Your task to perform on an android device: Clear all items from cart on walmart.com. Search for "duracell triple a" on walmart.com, select the first entry, add it to the cart, then select checkout. Image 0: 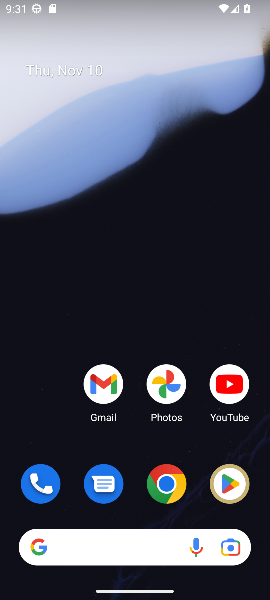
Step 0: click (172, 491)
Your task to perform on an android device: Clear all items from cart on walmart.com. Search for "duracell triple a" on walmart.com, select the first entry, add it to the cart, then select checkout. Image 1: 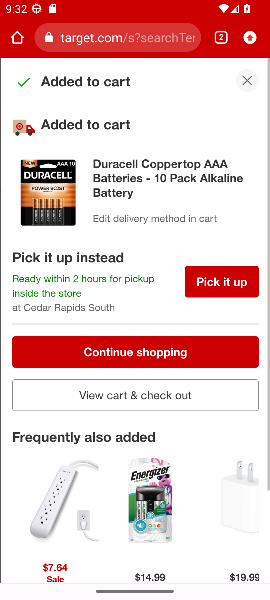
Step 1: click (106, 39)
Your task to perform on an android device: Clear all items from cart on walmart.com. Search for "duracell triple a" on walmart.com, select the first entry, add it to the cart, then select checkout. Image 2: 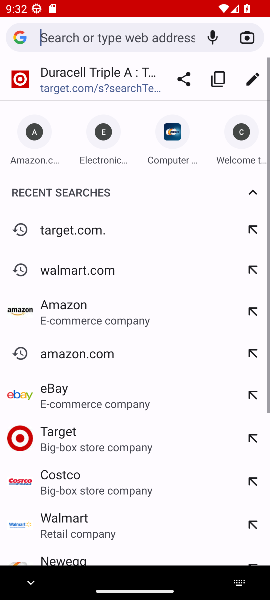
Step 2: click (82, 275)
Your task to perform on an android device: Clear all items from cart on walmart.com. Search for "duracell triple a" on walmart.com, select the first entry, add it to the cart, then select checkout. Image 3: 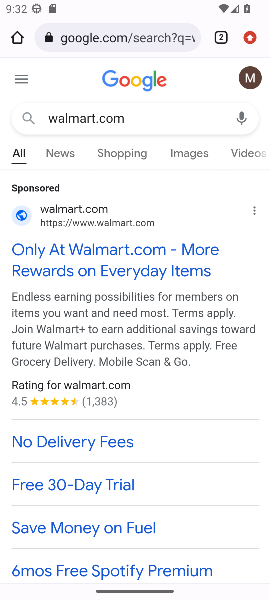
Step 3: drag from (70, 397) to (82, 197)
Your task to perform on an android device: Clear all items from cart on walmart.com. Search for "duracell triple a" on walmart.com, select the first entry, add it to the cart, then select checkout. Image 4: 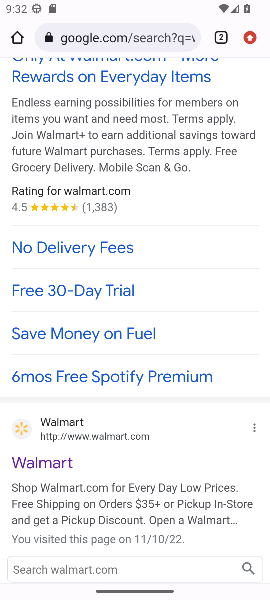
Step 4: click (48, 464)
Your task to perform on an android device: Clear all items from cart on walmart.com. Search for "duracell triple a" on walmart.com, select the first entry, add it to the cart, then select checkout. Image 5: 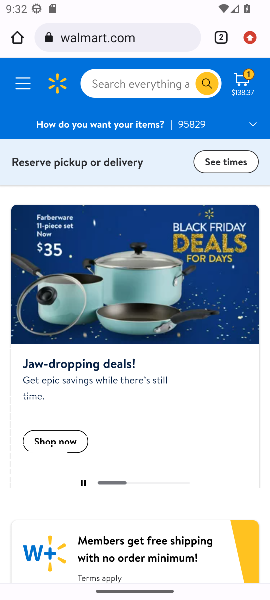
Step 5: click (247, 84)
Your task to perform on an android device: Clear all items from cart on walmart.com. Search for "duracell triple a" on walmart.com, select the first entry, add it to the cart, then select checkout. Image 6: 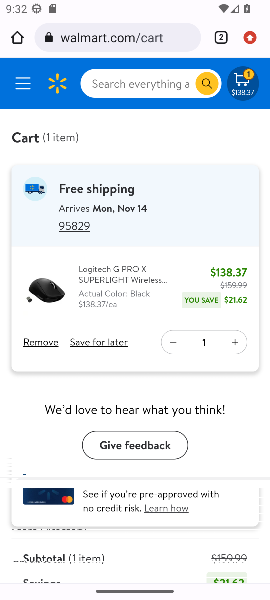
Step 6: click (48, 345)
Your task to perform on an android device: Clear all items from cart on walmart.com. Search for "duracell triple a" on walmart.com, select the first entry, add it to the cart, then select checkout. Image 7: 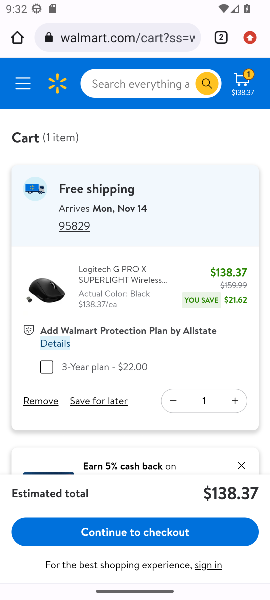
Step 7: click (40, 403)
Your task to perform on an android device: Clear all items from cart on walmart.com. Search for "duracell triple a" on walmart.com, select the first entry, add it to the cart, then select checkout. Image 8: 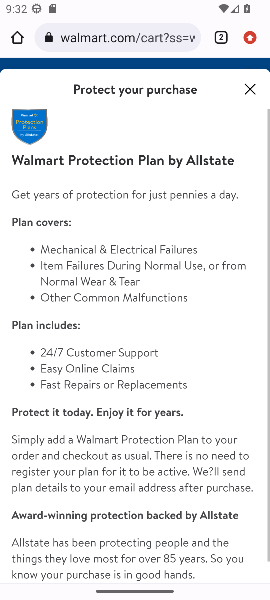
Step 8: click (249, 87)
Your task to perform on an android device: Clear all items from cart on walmart.com. Search for "duracell triple a" on walmart.com, select the first entry, add it to the cart, then select checkout. Image 9: 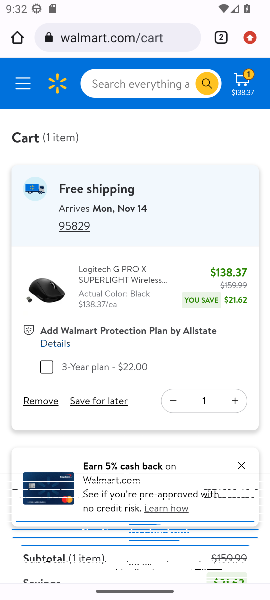
Step 9: click (28, 405)
Your task to perform on an android device: Clear all items from cart on walmart.com. Search for "duracell triple a" on walmart.com, select the first entry, add it to the cart, then select checkout. Image 10: 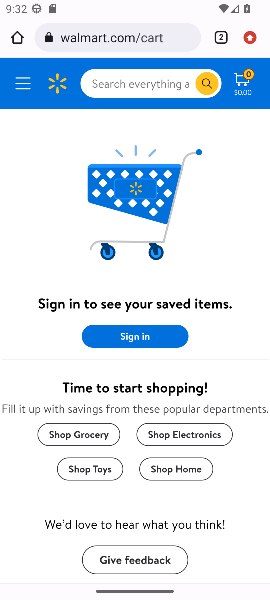
Step 10: click (125, 86)
Your task to perform on an android device: Clear all items from cart on walmart.com. Search for "duracell triple a" on walmart.com, select the first entry, add it to the cart, then select checkout. Image 11: 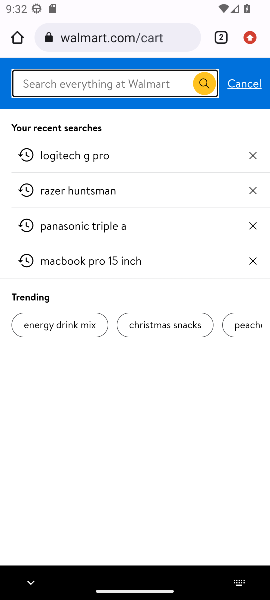
Step 11: type "duracell triple a"
Your task to perform on an android device: Clear all items from cart on walmart.com. Search for "duracell triple a" on walmart.com, select the first entry, add it to the cart, then select checkout. Image 12: 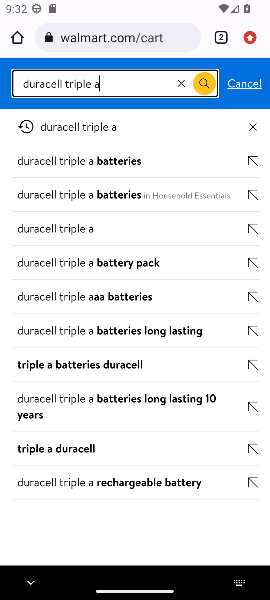
Step 12: click (83, 131)
Your task to perform on an android device: Clear all items from cart on walmart.com. Search for "duracell triple a" on walmart.com, select the first entry, add it to the cart, then select checkout. Image 13: 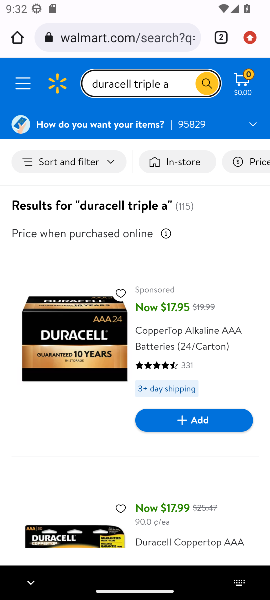
Step 13: click (196, 423)
Your task to perform on an android device: Clear all items from cart on walmart.com. Search for "duracell triple a" on walmart.com, select the first entry, add it to the cart, then select checkout. Image 14: 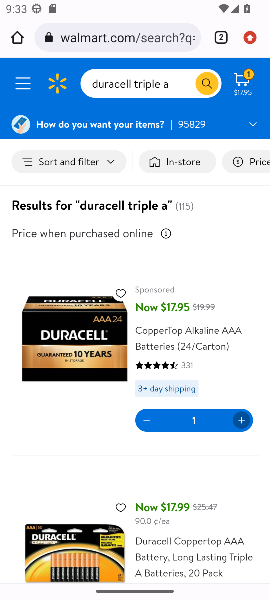
Step 14: click (238, 80)
Your task to perform on an android device: Clear all items from cart on walmart.com. Search for "duracell triple a" on walmart.com, select the first entry, add it to the cart, then select checkout. Image 15: 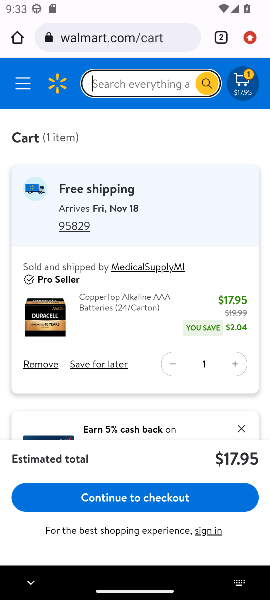
Step 15: click (107, 500)
Your task to perform on an android device: Clear all items from cart on walmart.com. Search for "duracell triple a" on walmart.com, select the first entry, add it to the cart, then select checkout. Image 16: 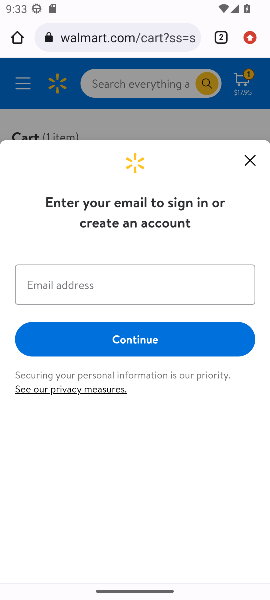
Step 16: task complete